Your task to perform on an android device: add a label to a message in the gmail app Image 0: 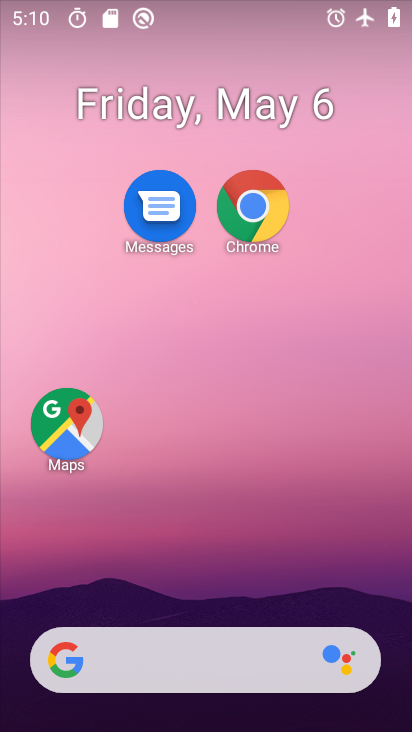
Step 0: drag from (161, 628) to (156, 279)
Your task to perform on an android device: add a label to a message in the gmail app Image 1: 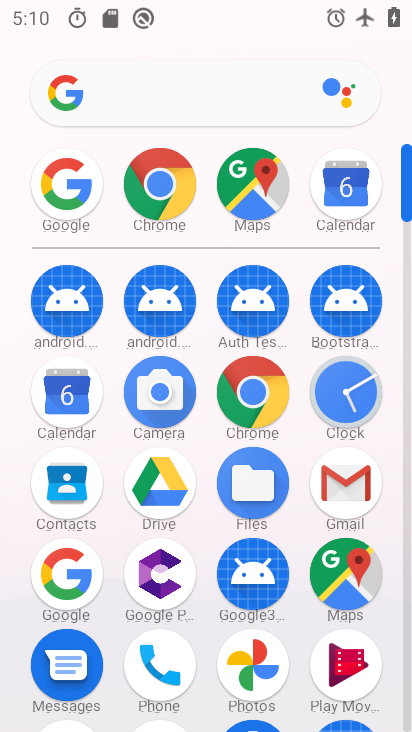
Step 1: click (334, 490)
Your task to perform on an android device: add a label to a message in the gmail app Image 2: 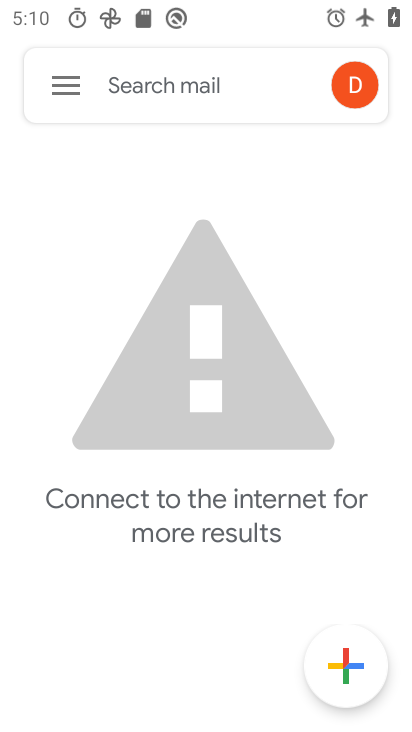
Step 2: task complete